Your task to perform on an android device: find which apps use the phone's location Image 0: 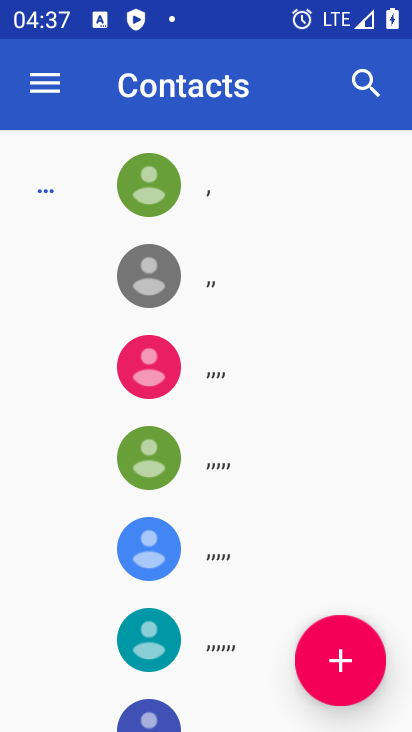
Step 0: press home button
Your task to perform on an android device: find which apps use the phone's location Image 1: 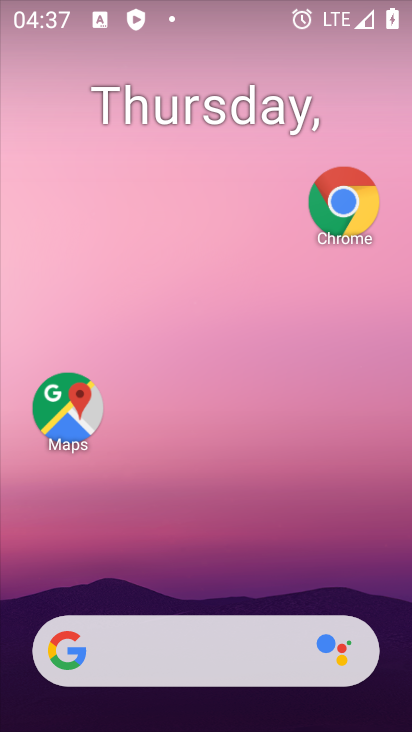
Step 1: drag from (290, 644) to (172, 0)
Your task to perform on an android device: find which apps use the phone's location Image 2: 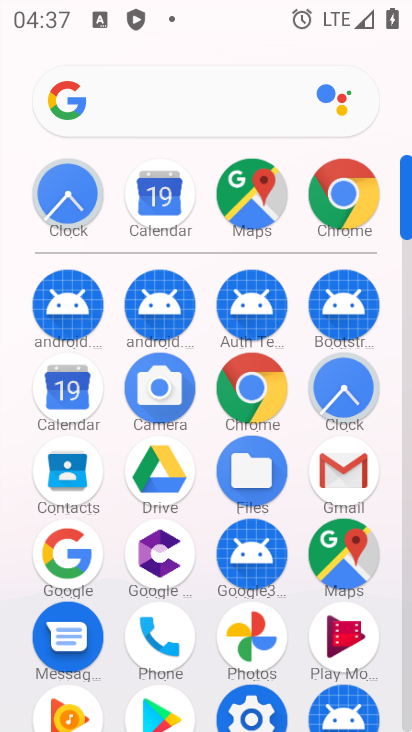
Step 2: click (254, 707)
Your task to perform on an android device: find which apps use the phone's location Image 3: 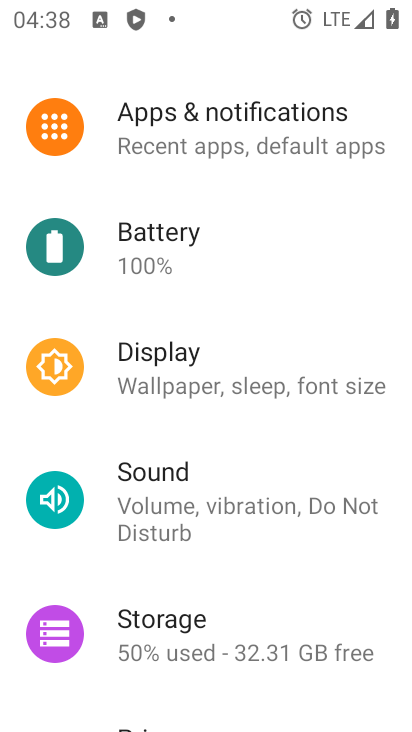
Step 3: drag from (254, 707) to (254, 251)
Your task to perform on an android device: find which apps use the phone's location Image 4: 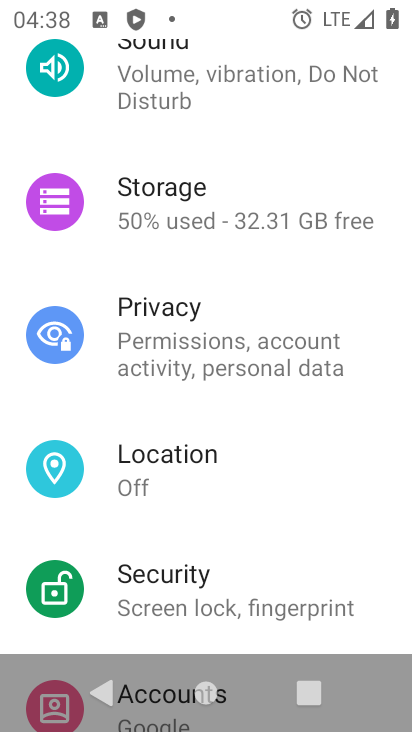
Step 4: click (248, 467)
Your task to perform on an android device: find which apps use the phone's location Image 5: 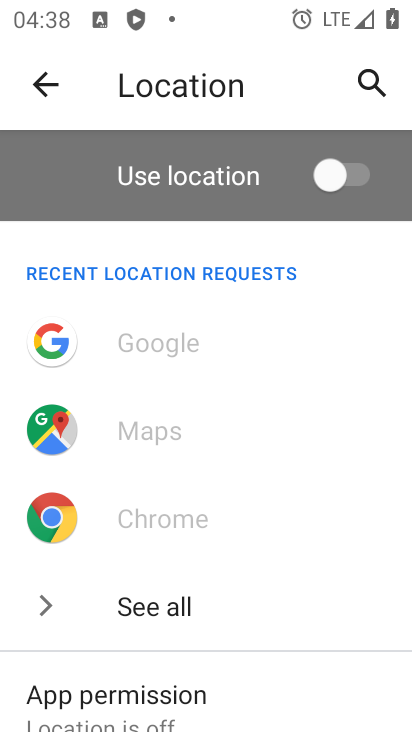
Step 5: drag from (304, 683) to (332, 268)
Your task to perform on an android device: find which apps use the phone's location Image 6: 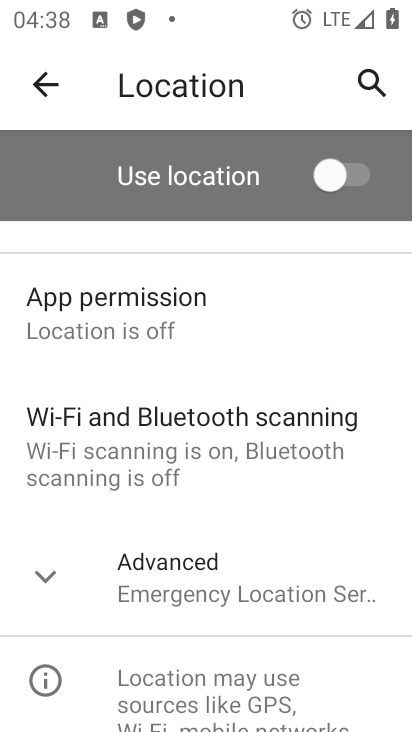
Step 6: drag from (307, 392) to (305, 720)
Your task to perform on an android device: find which apps use the phone's location Image 7: 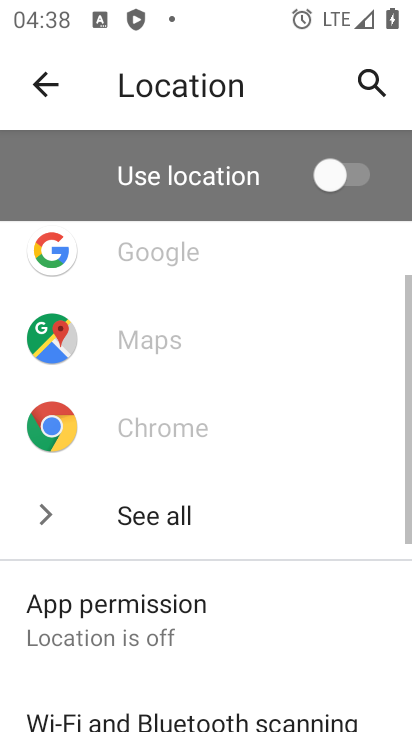
Step 7: click (240, 637)
Your task to perform on an android device: find which apps use the phone's location Image 8: 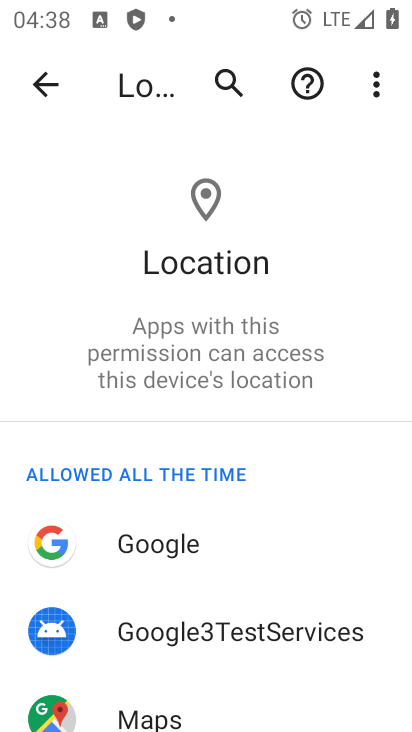
Step 8: task complete